Your task to perform on an android device: toggle airplane mode Image 0: 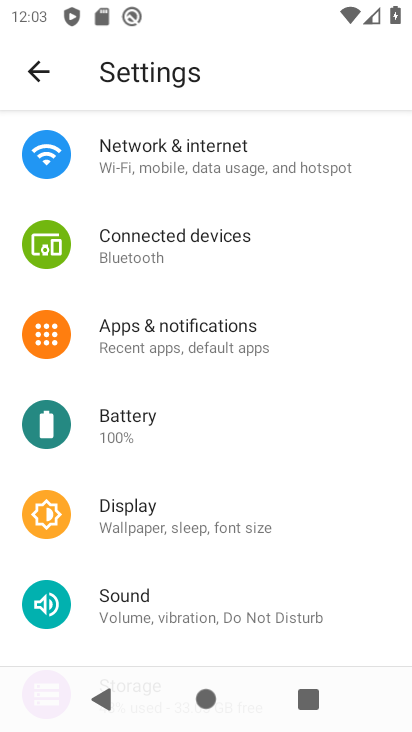
Step 0: press home button
Your task to perform on an android device: toggle airplane mode Image 1: 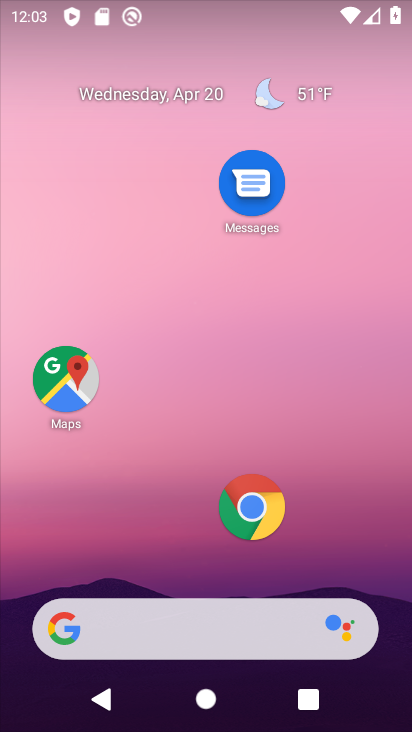
Step 1: drag from (197, 559) to (326, 141)
Your task to perform on an android device: toggle airplane mode Image 2: 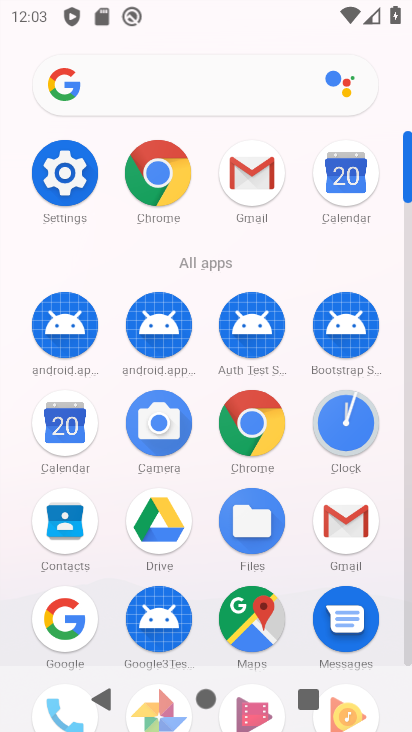
Step 2: click (66, 175)
Your task to perform on an android device: toggle airplane mode Image 3: 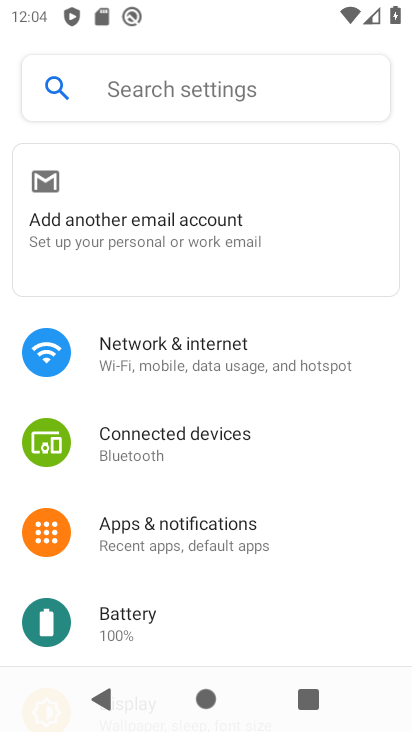
Step 3: click (189, 356)
Your task to perform on an android device: toggle airplane mode Image 4: 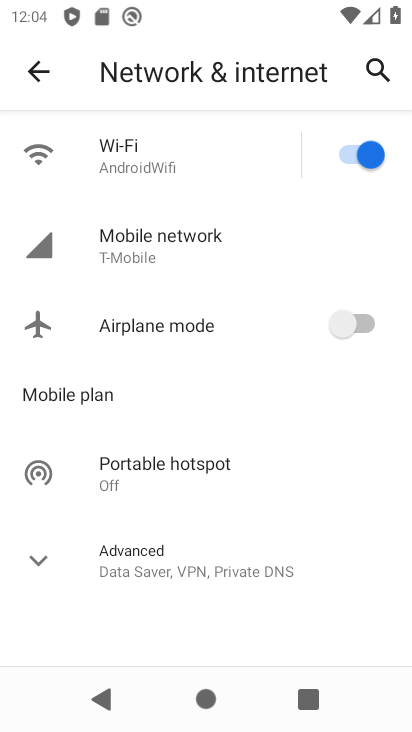
Step 4: click (333, 331)
Your task to perform on an android device: toggle airplane mode Image 5: 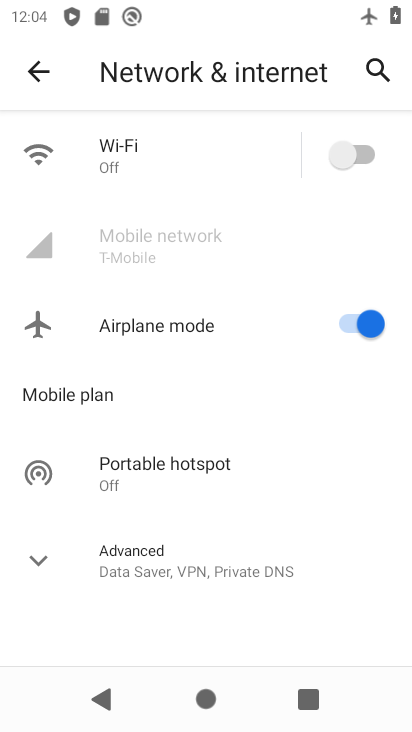
Step 5: task complete